Your task to perform on an android device: Search for seafood restaurants on Google Maps Image 0: 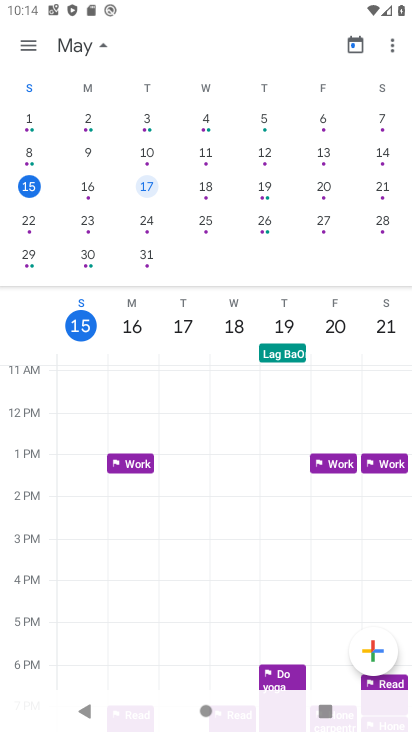
Step 0: press home button
Your task to perform on an android device: Search for seafood restaurants on Google Maps Image 1: 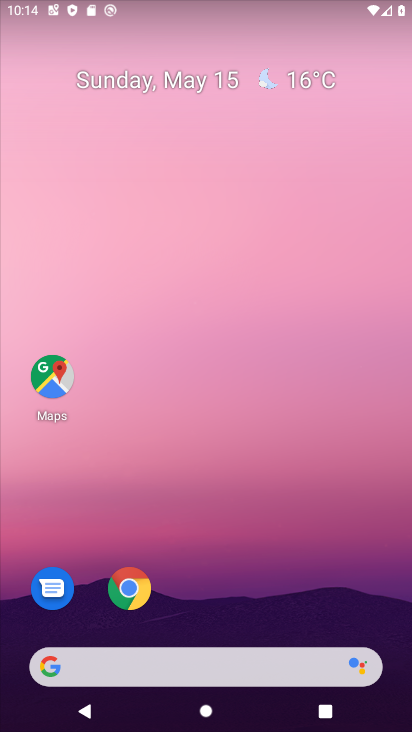
Step 1: click (43, 382)
Your task to perform on an android device: Search for seafood restaurants on Google Maps Image 2: 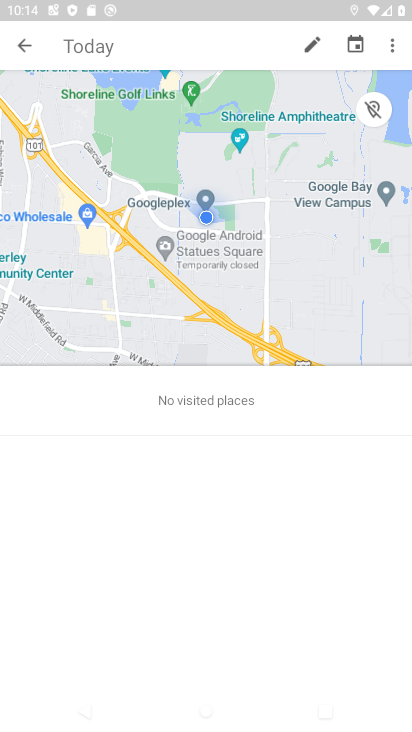
Step 2: click (27, 46)
Your task to perform on an android device: Search for seafood restaurants on Google Maps Image 3: 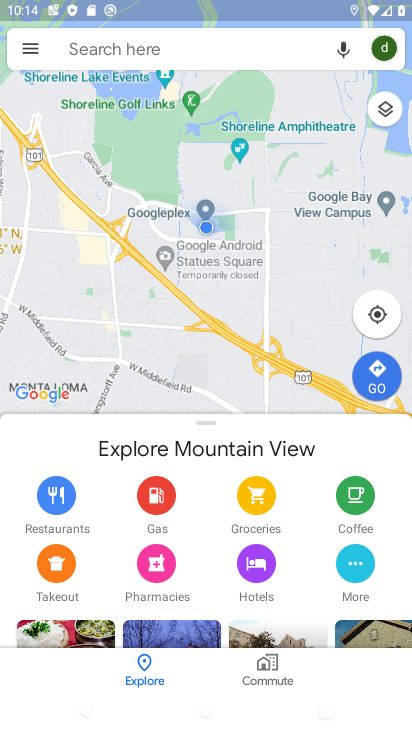
Step 3: click (241, 43)
Your task to perform on an android device: Search for seafood restaurants on Google Maps Image 4: 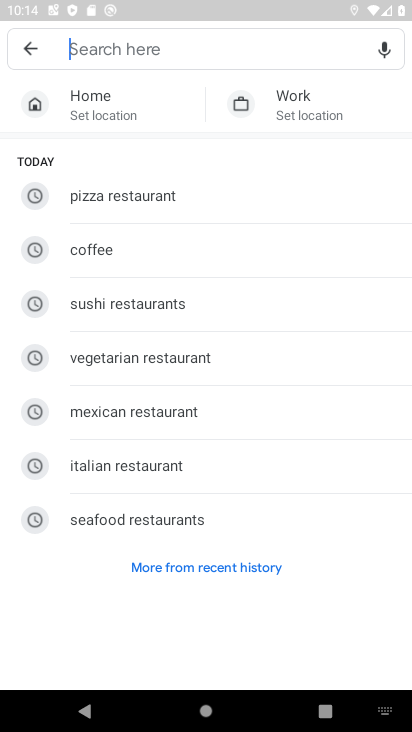
Step 4: click (196, 518)
Your task to perform on an android device: Search for seafood restaurants on Google Maps Image 5: 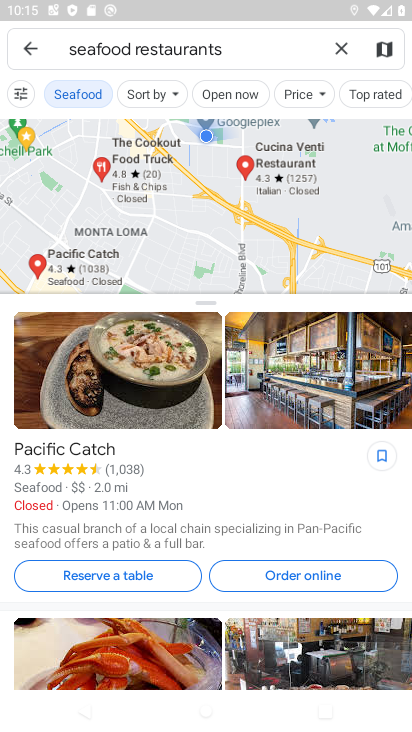
Step 5: task complete